Your task to perform on an android device: open app "Airtel Thanks" Image 0: 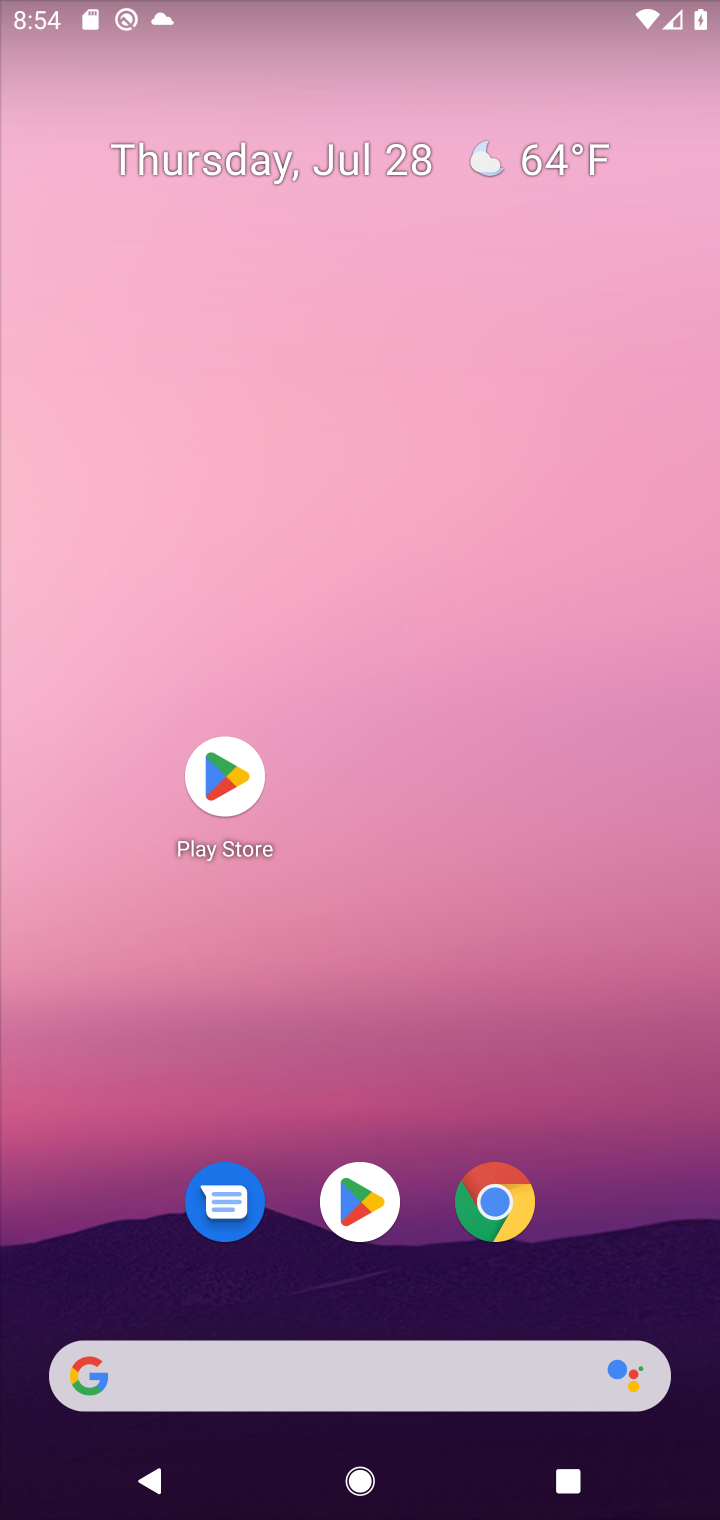
Step 0: click (365, 1206)
Your task to perform on an android device: open app "Airtel Thanks" Image 1: 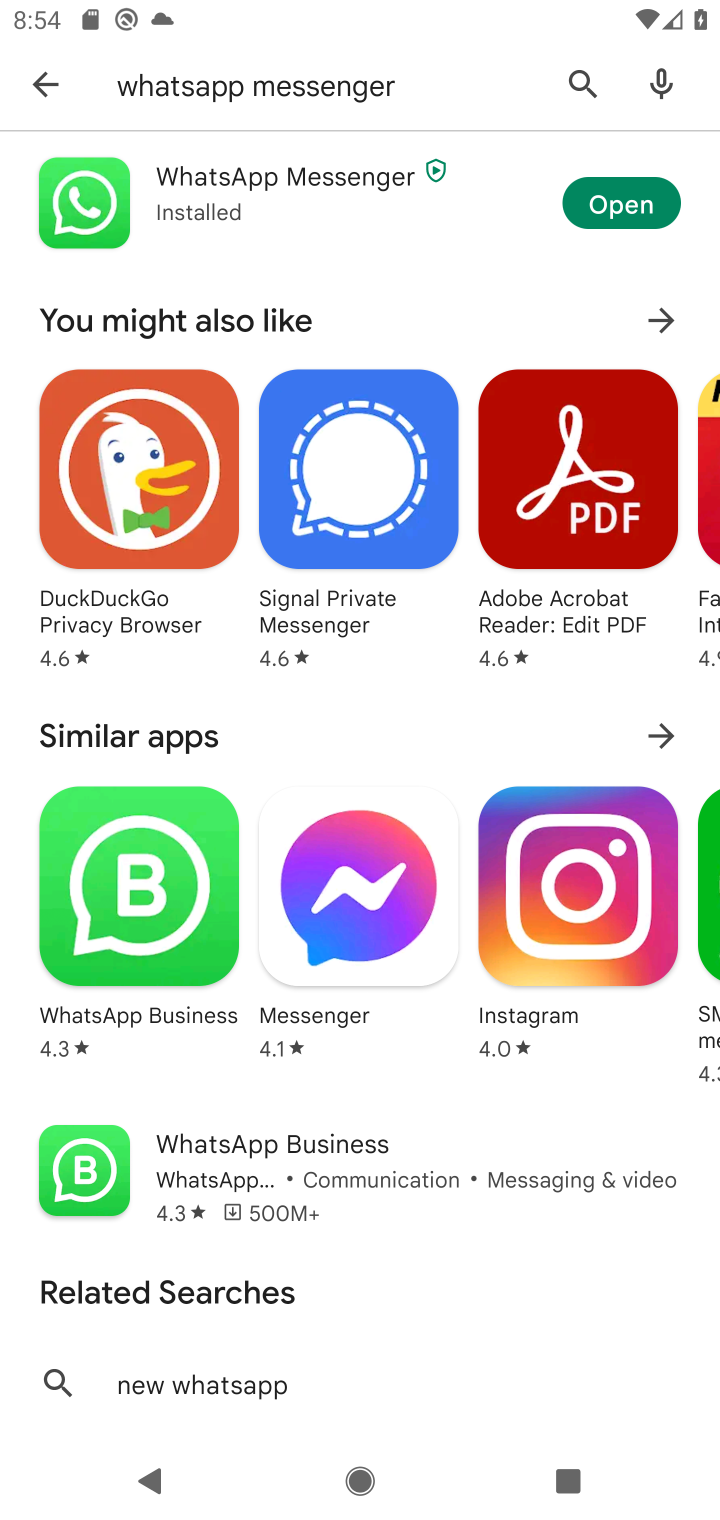
Step 1: click (581, 83)
Your task to perform on an android device: open app "Airtel Thanks" Image 2: 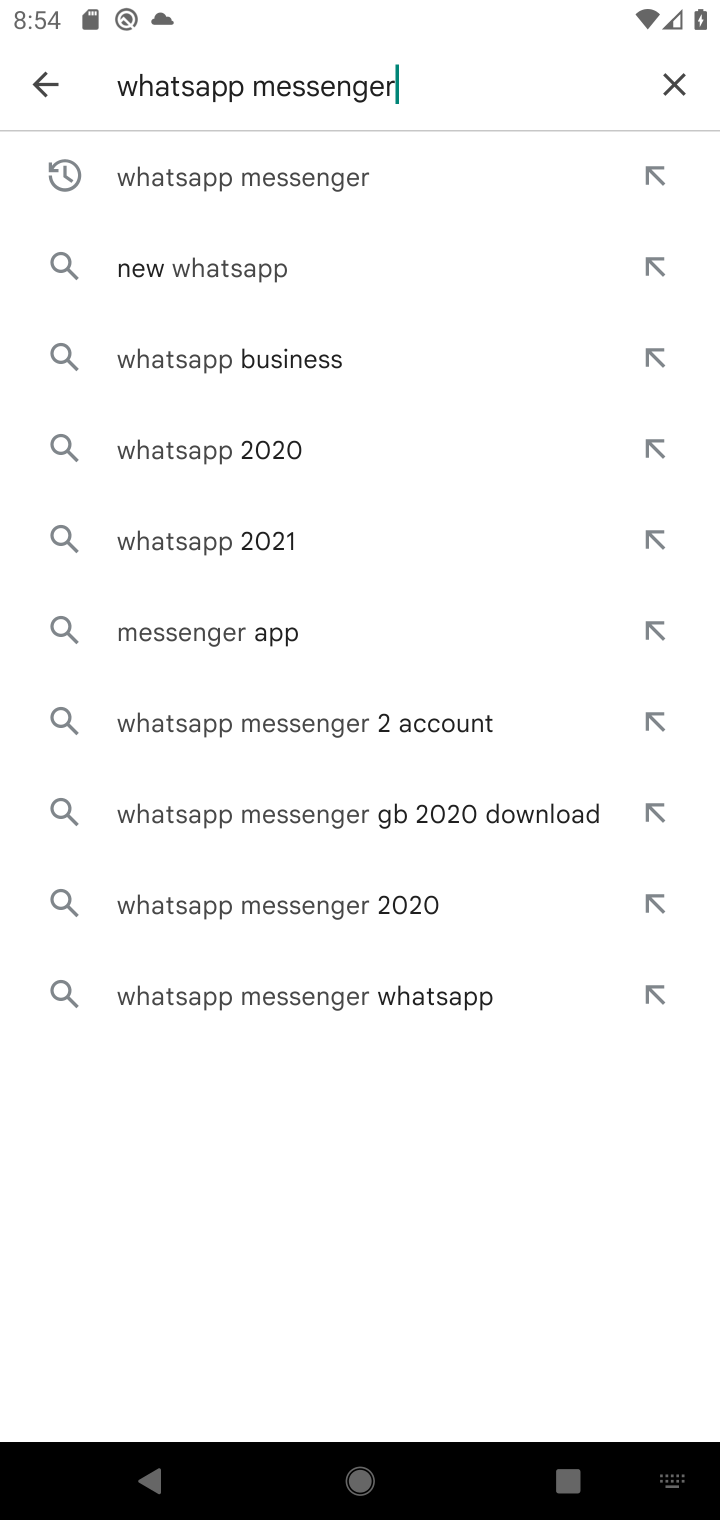
Step 2: click (680, 68)
Your task to perform on an android device: open app "Airtel Thanks" Image 3: 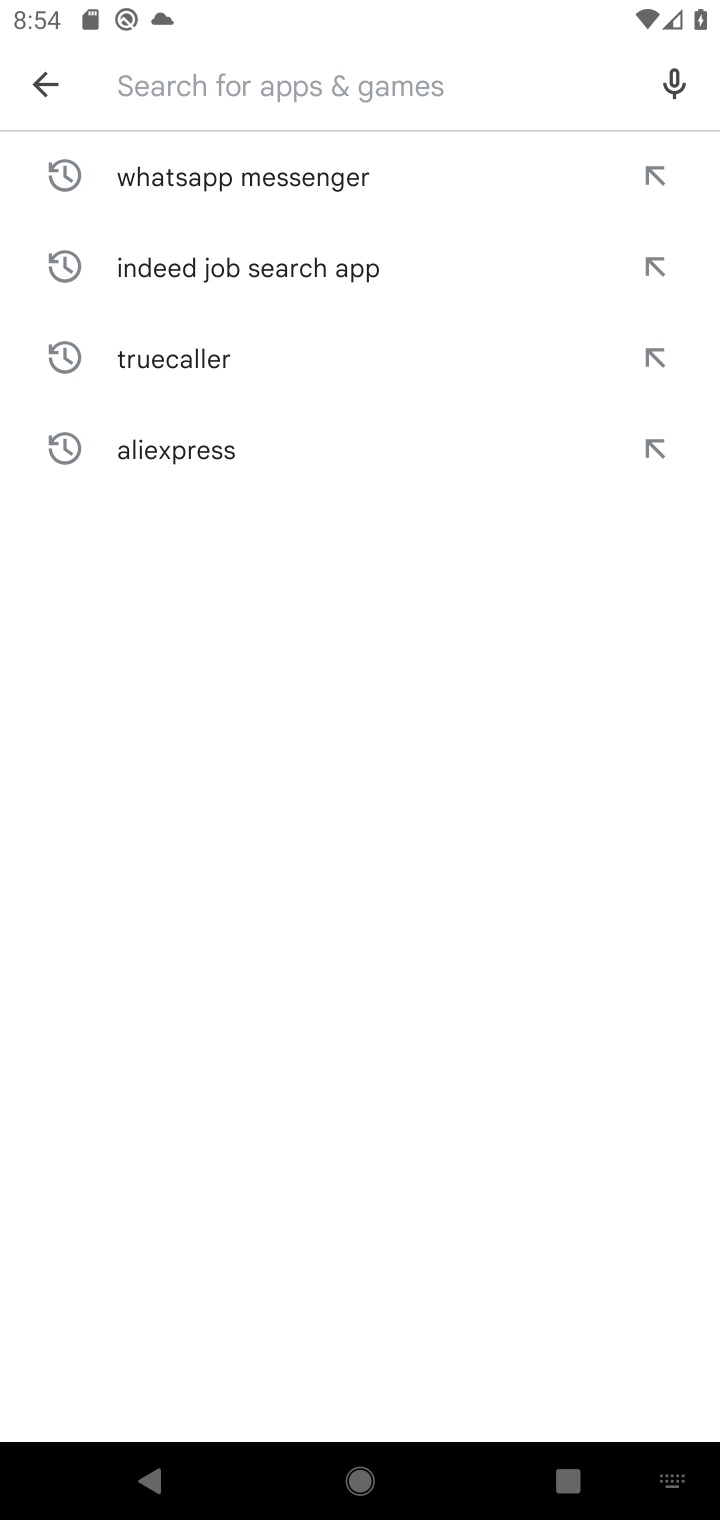
Step 3: type "airtel thanks"
Your task to perform on an android device: open app "Airtel Thanks" Image 4: 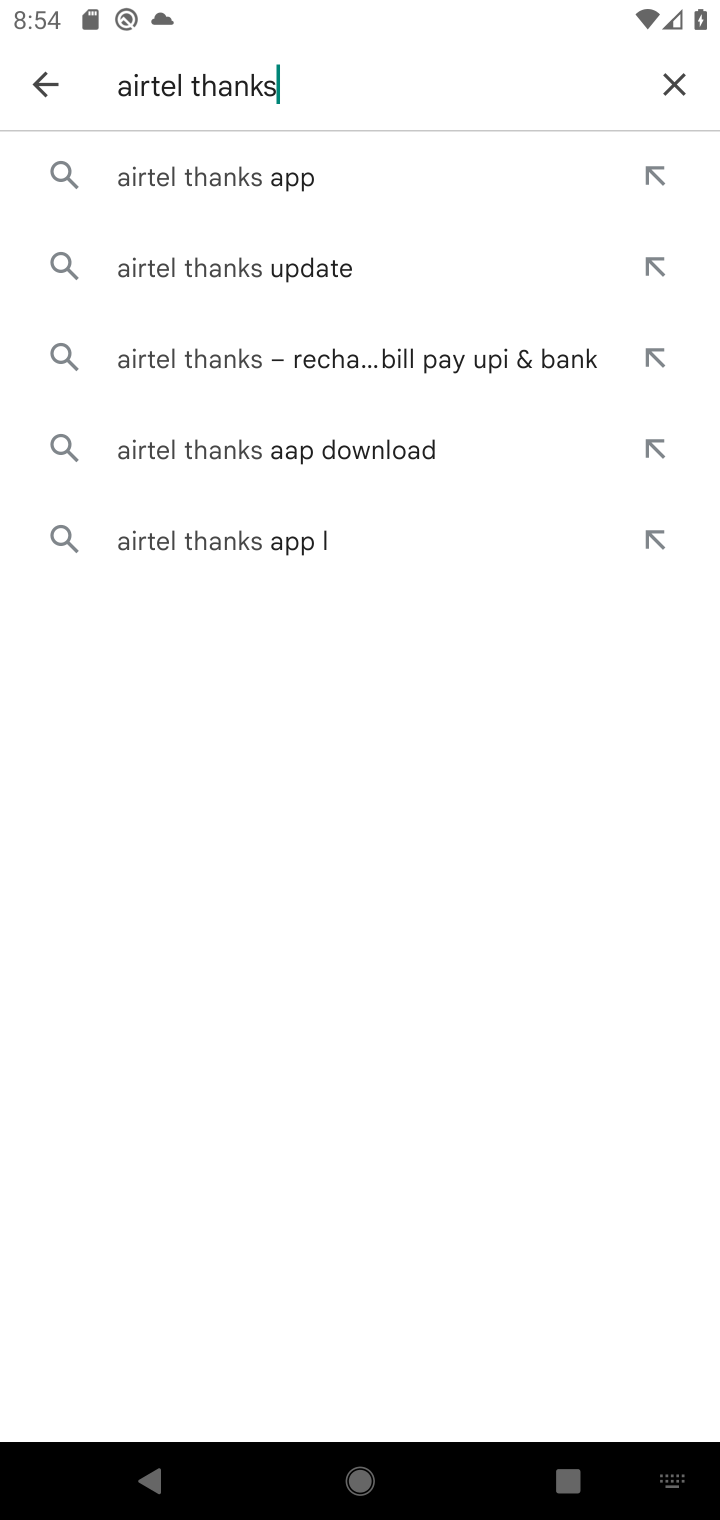
Step 4: click (219, 166)
Your task to perform on an android device: open app "Airtel Thanks" Image 5: 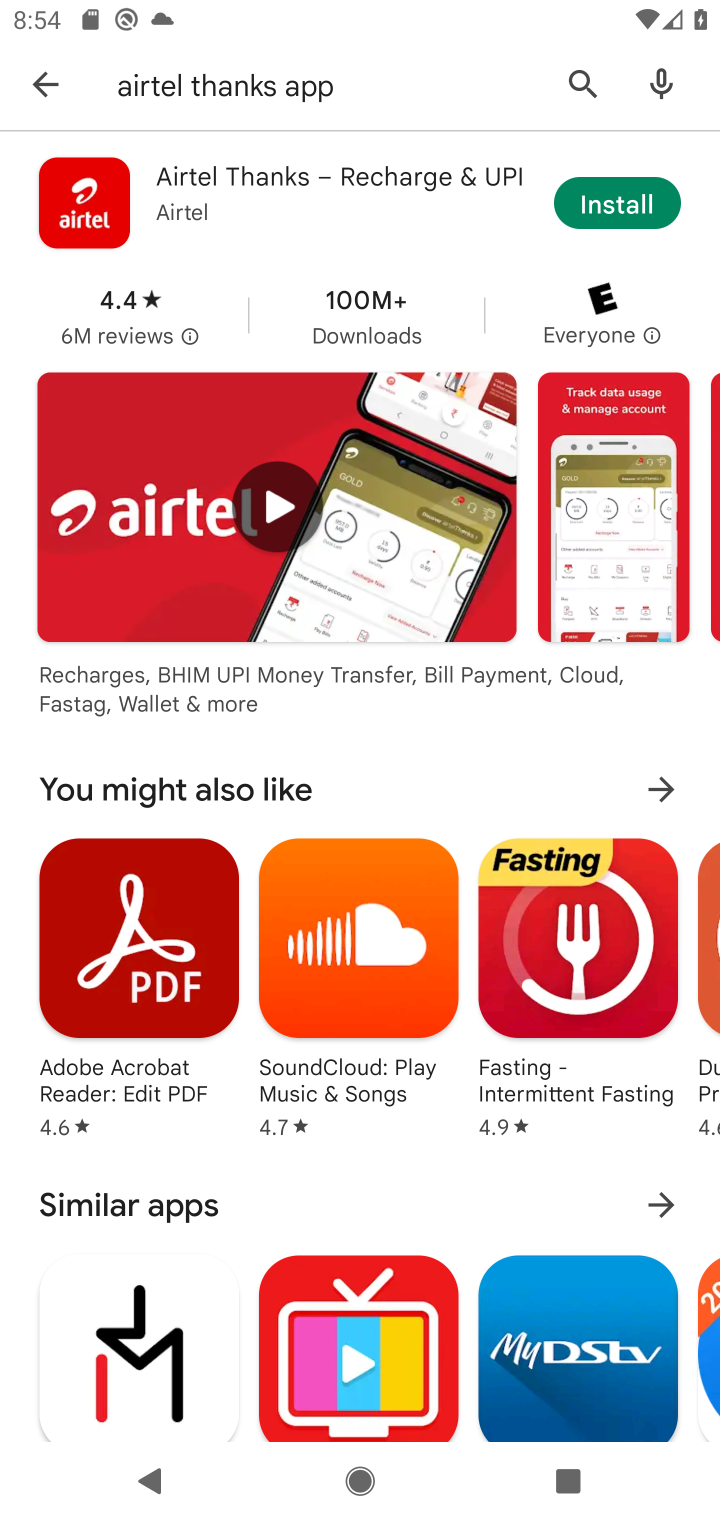
Step 5: task complete